Your task to perform on an android device: delete location history Image 0: 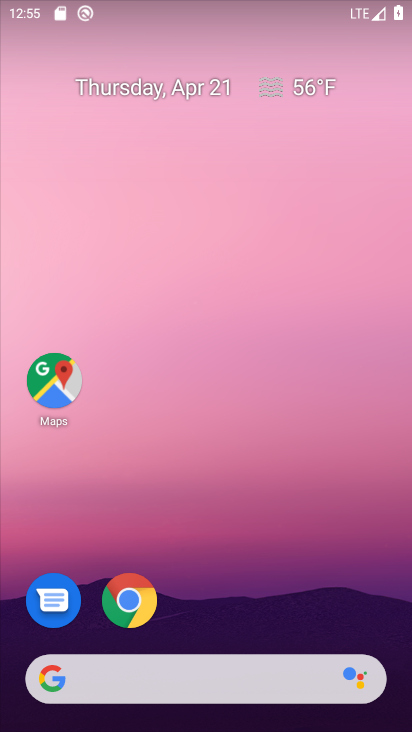
Step 0: click (54, 393)
Your task to perform on an android device: delete location history Image 1: 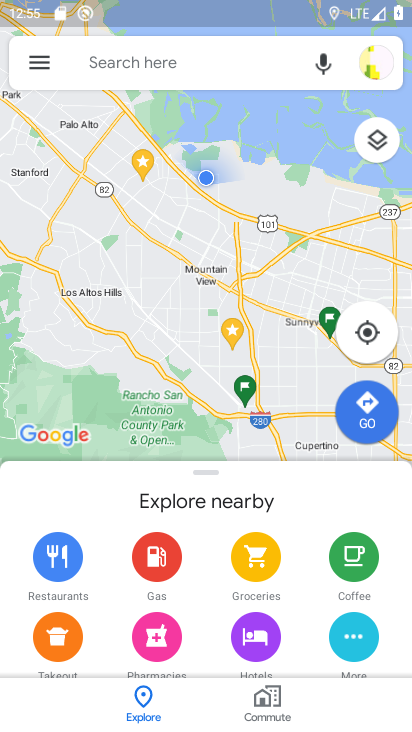
Step 1: click (44, 59)
Your task to perform on an android device: delete location history Image 2: 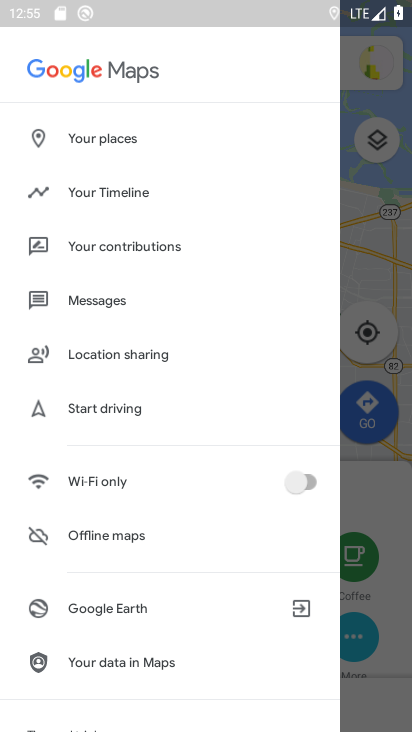
Step 2: click (113, 185)
Your task to perform on an android device: delete location history Image 3: 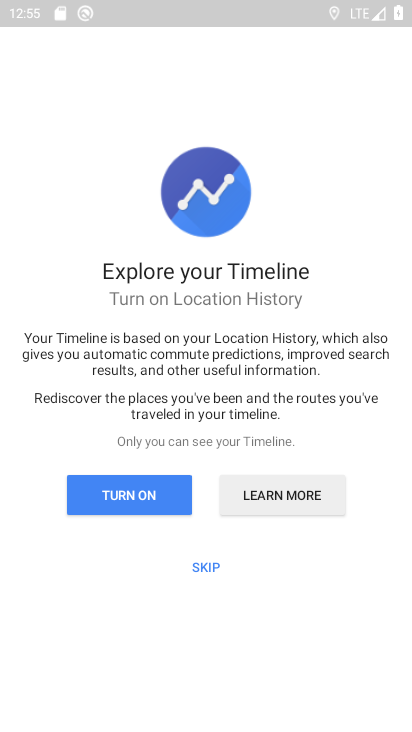
Step 3: click (201, 559)
Your task to perform on an android device: delete location history Image 4: 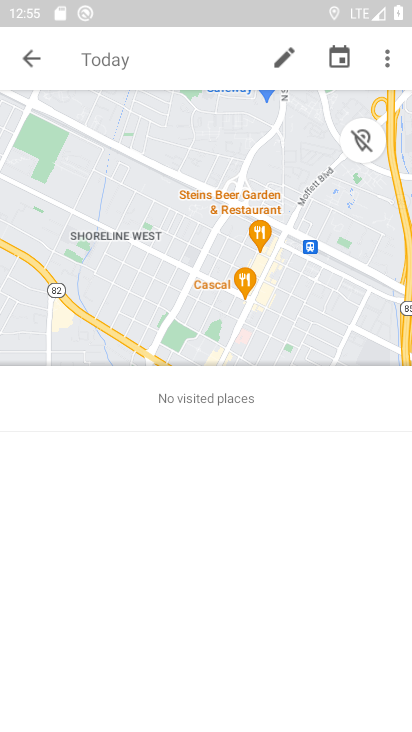
Step 4: click (389, 58)
Your task to perform on an android device: delete location history Image 5: 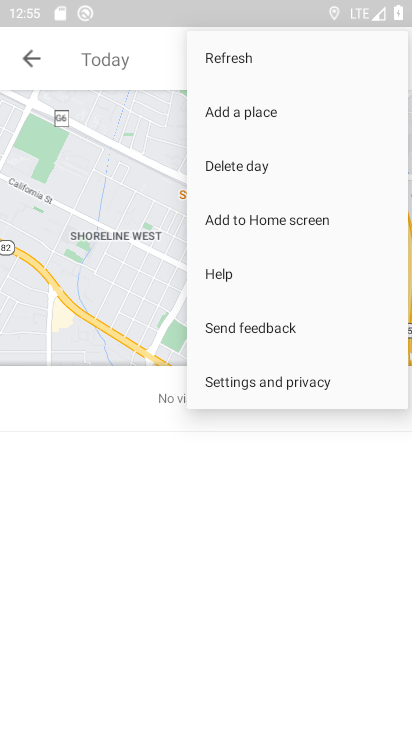
Step 5: click (305, 376)
Your task to perform on an android device: delete location history Image 6: 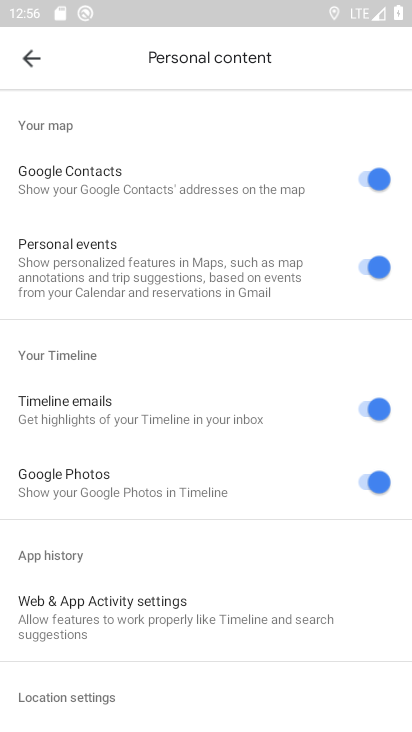
Step 6: drag from (210, 574) to (226, 173)
Your task to perform on an android device: delete location history Image 7: 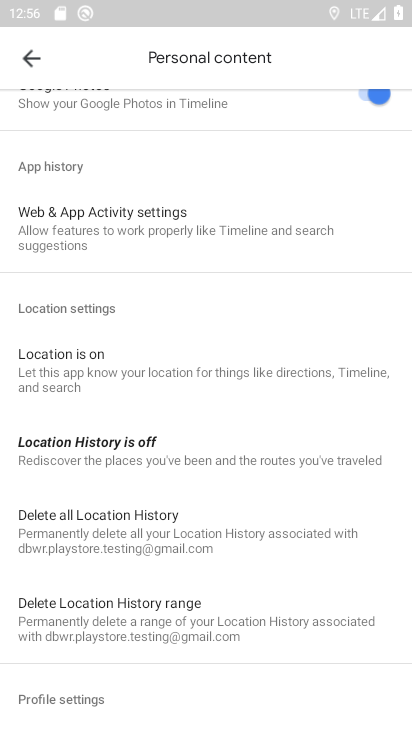
Step 7: click (183, 534)
Your task to perform on an android device: delete location history Image 8: 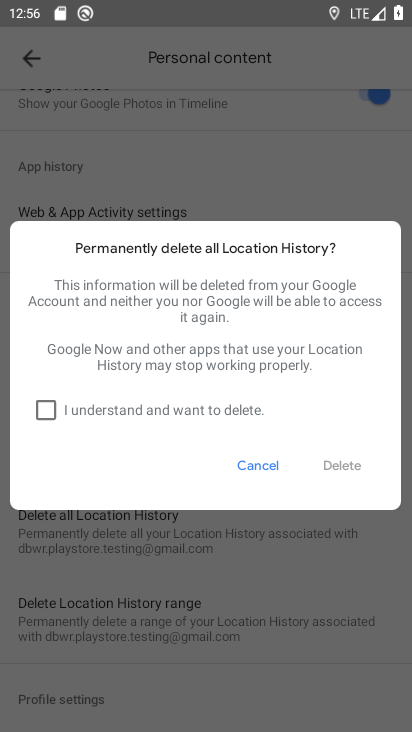
Step 8: click (51, 407)
Your task to perform on an android device: delete location history Image 9: 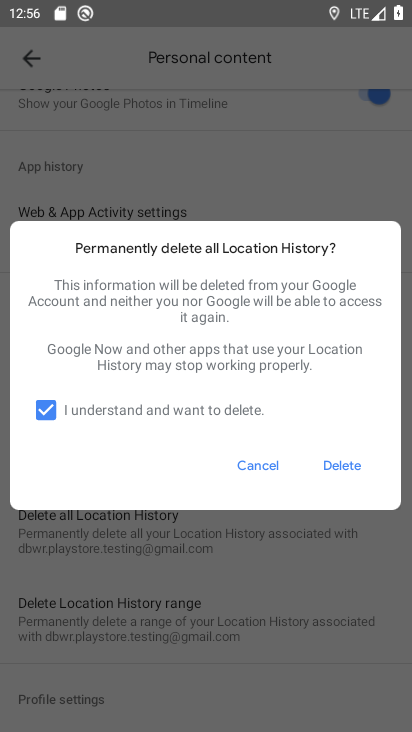
Step 9: click (353, 451)
Your task to perform on an android device: delete location history Image 10: 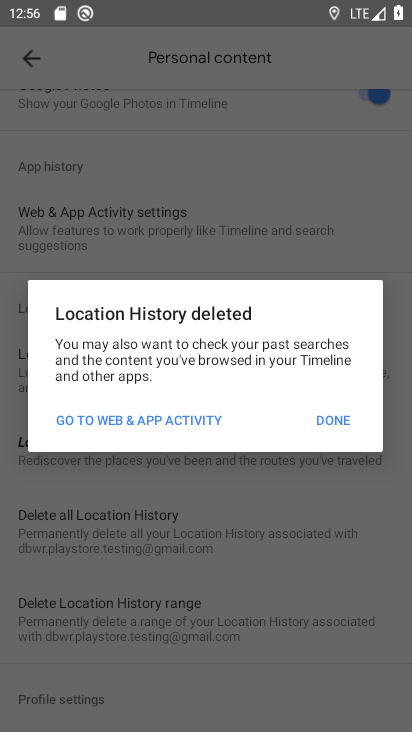
Step 10: click (340, 412)
Your task to perform on an android device: delete location history Image 11: 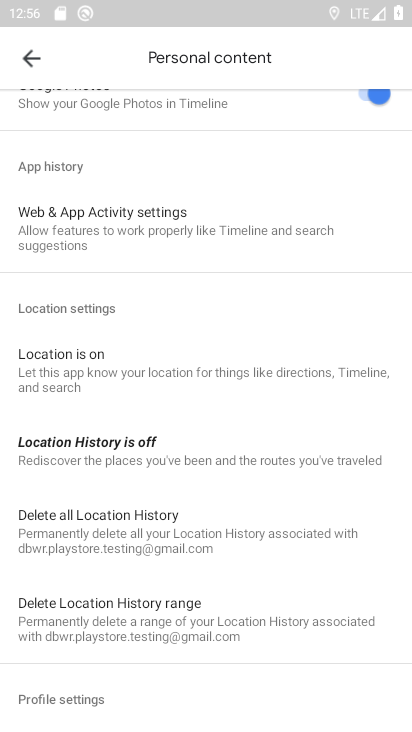
Step 11: task complete